Your task to perform on an android device: Clear all items from cart on target.com. Search for "razer blade" on target.com, select the first entry, add it to the cart, then select checkout. Image 0: 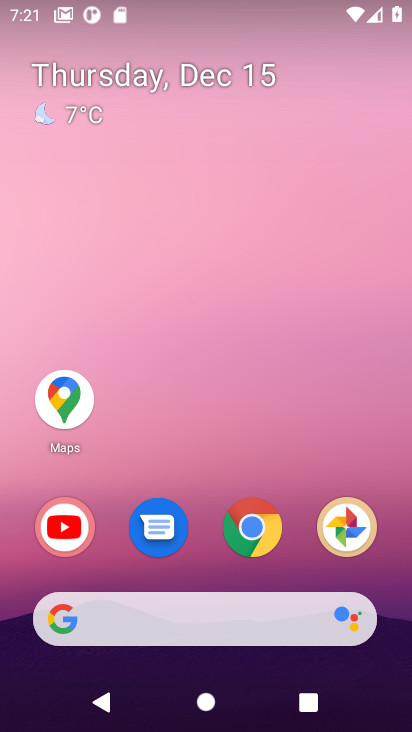
Step 0: click (249, 638)
Your task to perform on an android device: Clear all items from cart on target.com. Search for "razer blade" on target.com, select the first entry, add it to the cart, then select checkout. Image 1: 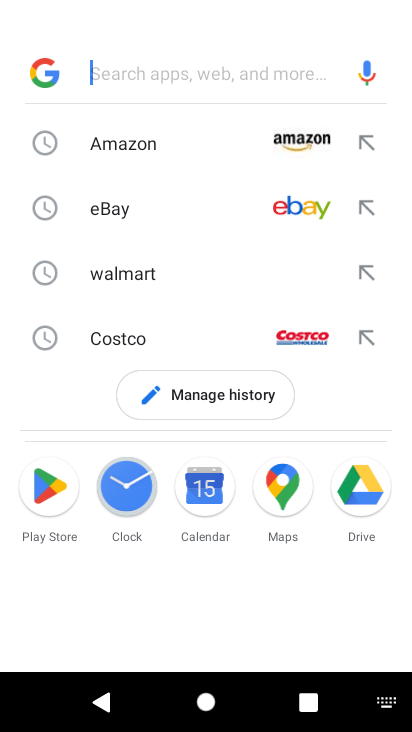
Step 1: type "target"
Your task to perform on an android device: Clear all items from cart on target.com. Search for "razer blade" on target.com, select the first entry, add it to the cart, then select checkout. Image 2: 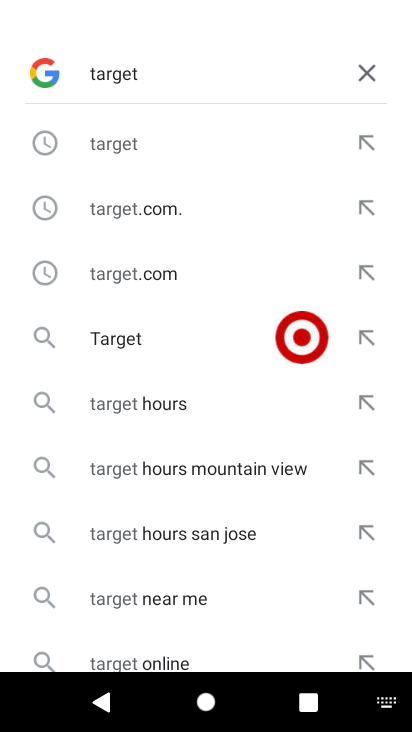
Step 2: click (216, 330)
Your task to perform on an android device: Clear all items from cart on target.com. Search for "razer blade" on target.com, select the first entry, add it to the cart, then select checkout. Image 3: 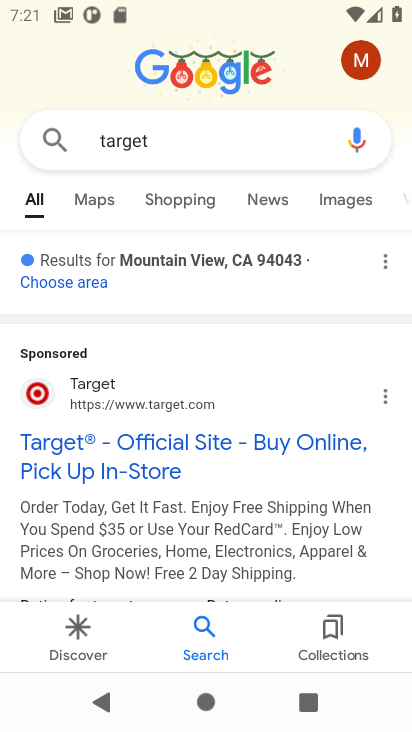
Step 3: click (152, 476)
Your task to perform on an android device: Clear all items from cart on target.com. Search for "razer blade" on target.com, select the first entry, add it to the cart, then select checkout. Image 4: 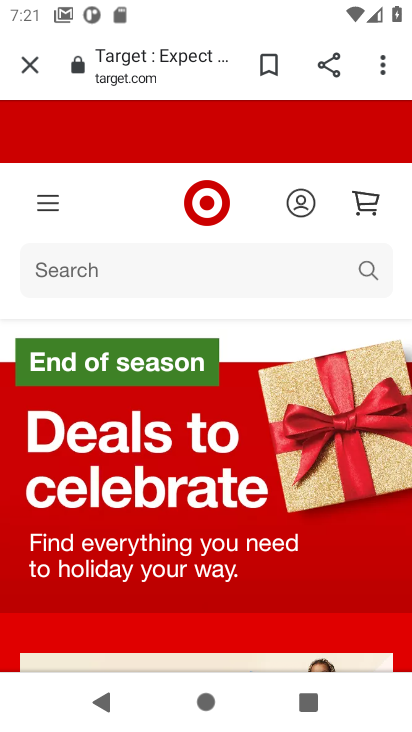
Step 4: click (132, 273)
Your task to perform on an android device: Clear all items from cart on target.com. Search for "razer blade" on target.com, select the first entry, add it to the cart, then select checkout. Image 5: 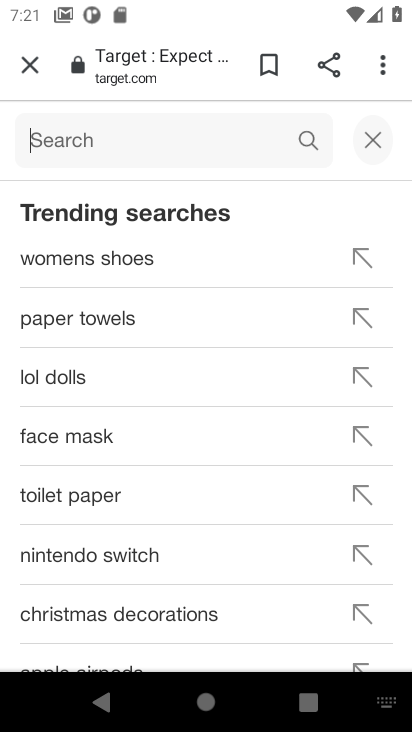
Step 5: type "razer blade"
Your task to perform on an android device: Clear all items from cart on target.com. Search for "razer blade" on target.com, select the first entry, add it to the cart, then select checkout. Image 6: 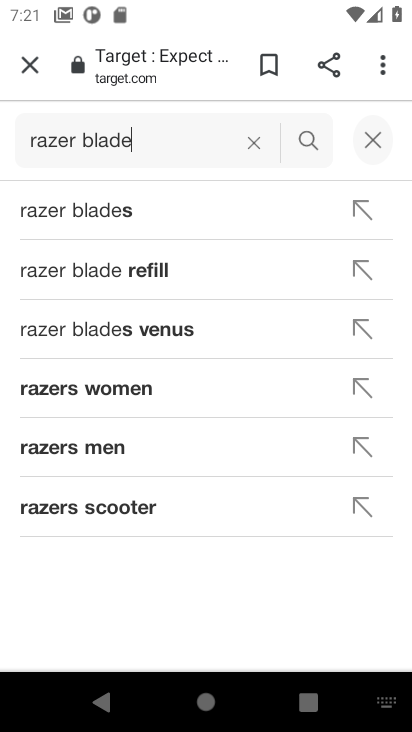
Step 6: click (316, 150)
Your task to perform on an android device: Clear all items from cart on target.com. Search for "razer blade" on target.com, select the first entry, add it to the cart, then select checkout. Image 7: 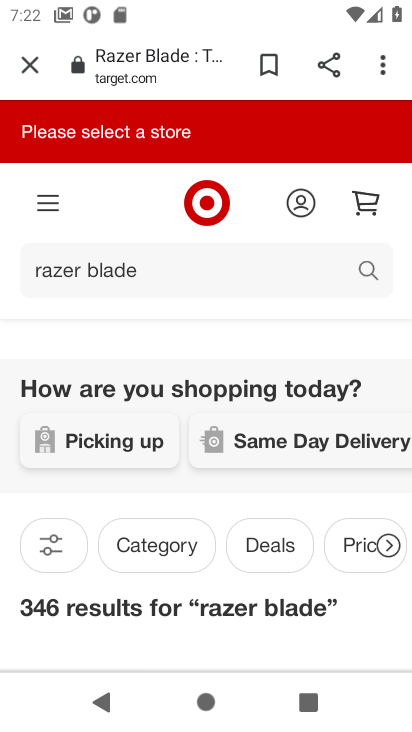
Step 7: drag from (235, 640) to (313, 47)
Your task to perform on an android device: Clear all items from cart on target.com. Search for "razer blade" on target.com, select the first entry, add it to the cart, then select checkout. Image 8: 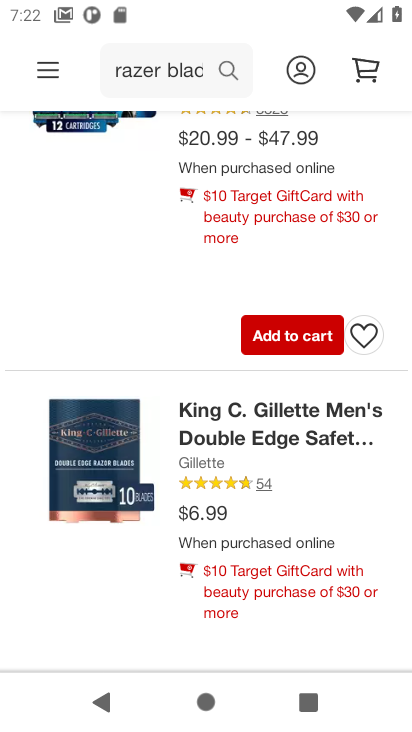
Step 8: click (303, 316)
Your task to perform on an android device: Clear all items from cart on target.com. Search for "razer blade" on target.com, select the first entry, add it to the cart, then select checkout. Image 9: 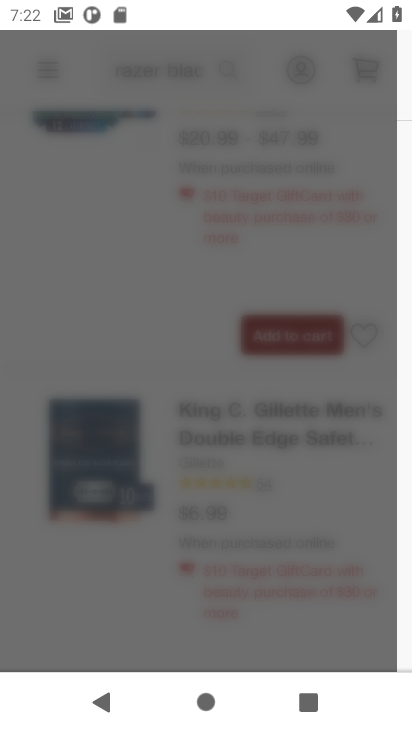
Step 9: task complete